Your task to perform on an android device: Open settings Image 0: 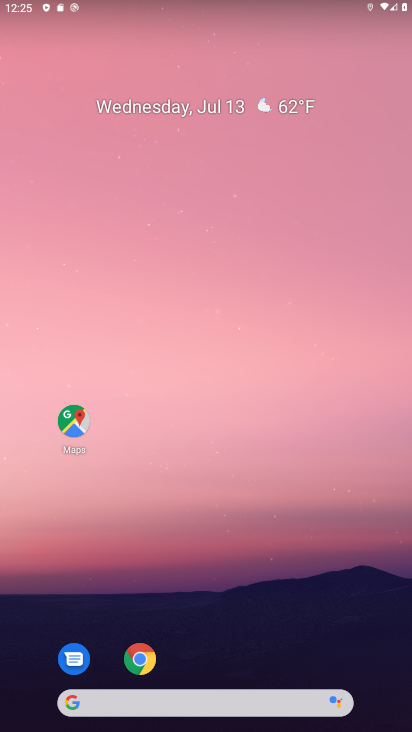
Step 0: click (160, 156)
Your task to perform on an android device: Open settings Image 1: 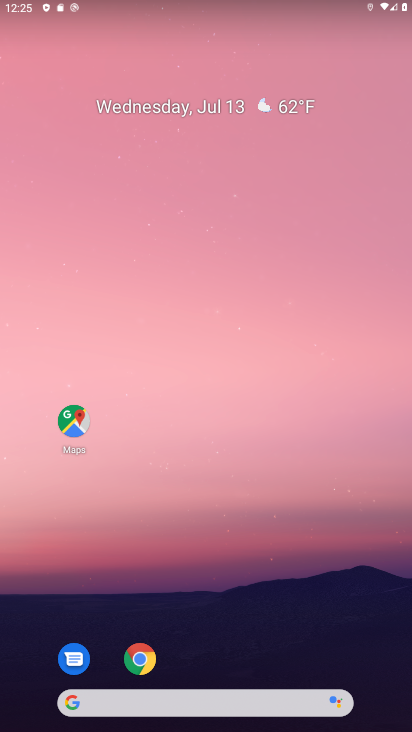
Step 1: drag from (225, 600) to (244, 292)
Your task to perform on an android device: Open settings Image 2: 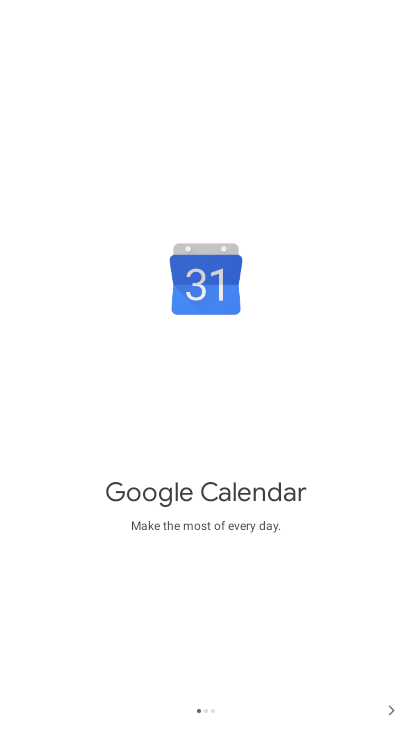
Step 2: press back button
Your task to perform on an android device: Open settings Image 3: 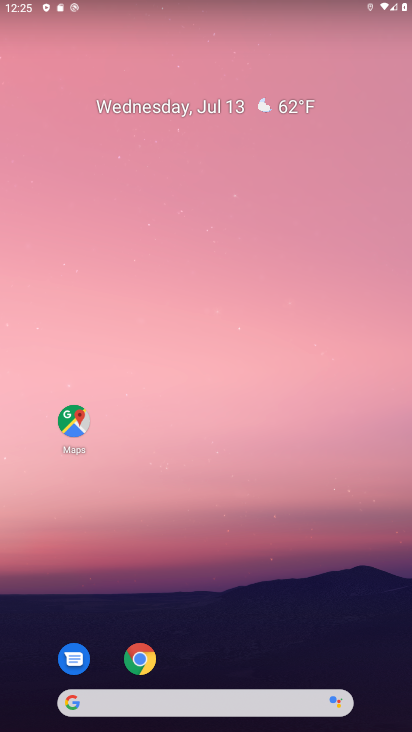
Step 3: drag from (200, 571) to (161, 5)
Your task to perform on an android device: Open settings Image 4: 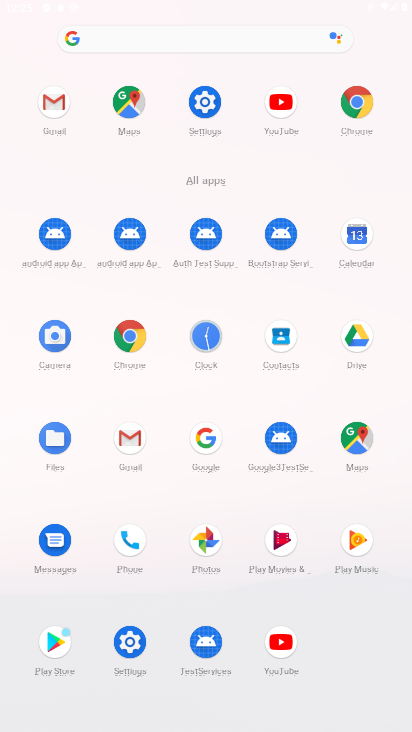
Step 4: click (202, 63)
Your task to perform on an android device: Open settings Image 5: 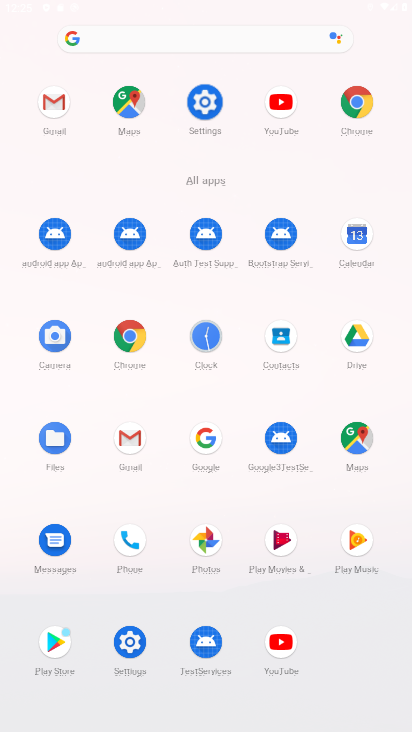
Step 5: click (202, 105)
Your task to perform on an android device: Open settings Image 6: 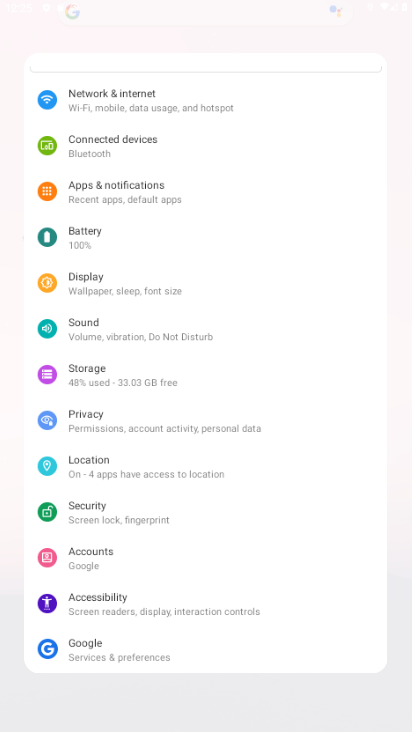
Step 6: click (209, 98)
Your task to perform on an android device: Open settings Image 7: 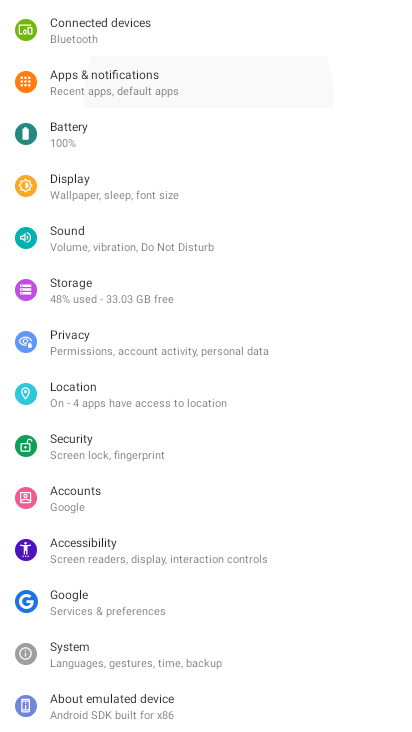
Step 7: click (210, 102)
Your task to perform on an android device: Open settings Image 8: 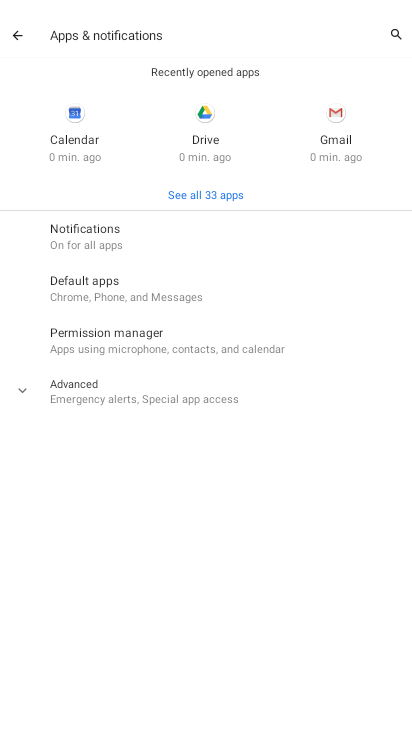
Step 8: click (18, 33)
Your task to perform on an android device: Open settings Image 9: 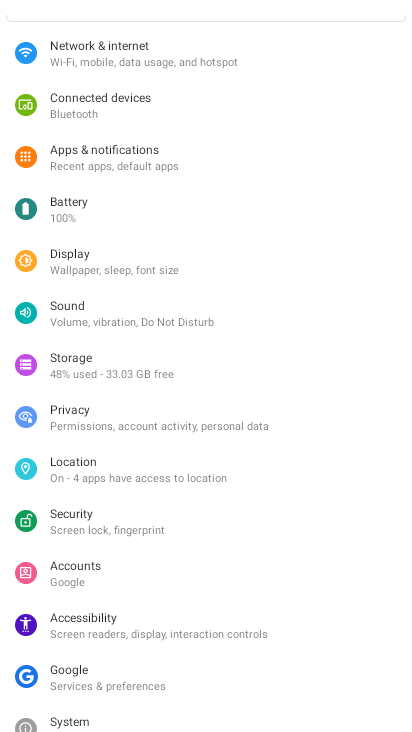
Step 9: task complete